Your task to perform on an android device: Open calendar and show me the second week of next month Image 0: 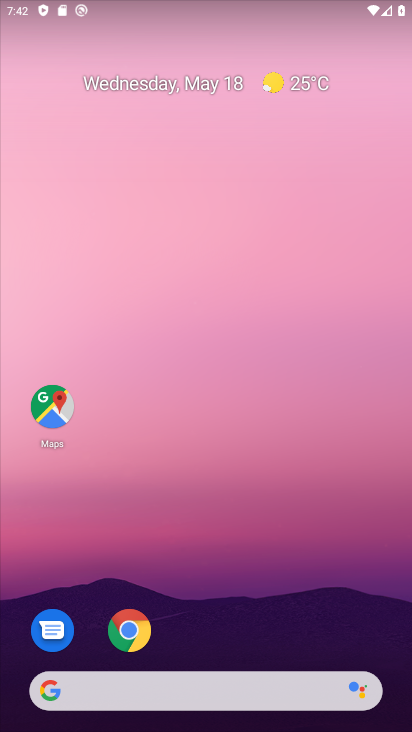
Step 0: drag from (249, 635) to (342, 258)
Your task to perform on an android device: Open calendar and show me the second week of next month Image 1: 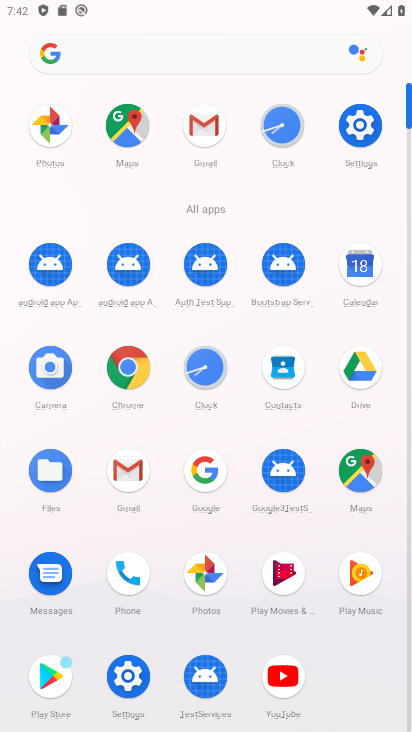
Step 1: click (356, 273)
Your task to perform on an android device: Open calendar and show me the second week of next month Image 2: 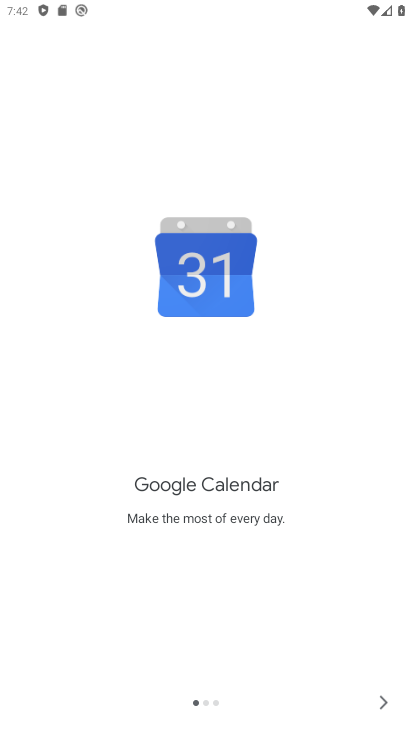
Step 2: click (380, 704)
Your task to perform on an android device: Open calendar and show me the second week of next month Image 3: 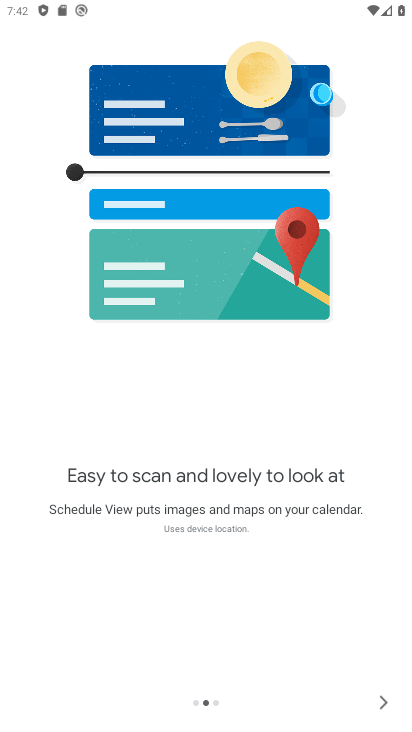
Step 3: click (380, 704)
Your task to perform on an android device: Open calendar and show me the second week of next month Image 4: 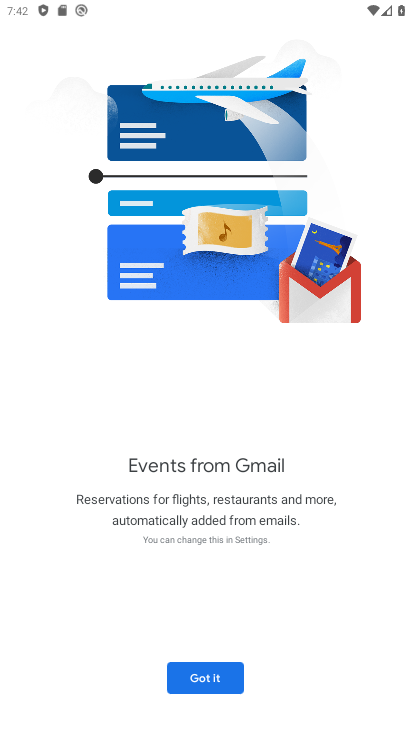
Step 4: click (380, 704)
Your task to perform on an android device: Open calendar and show me the second week of next month Image 5: 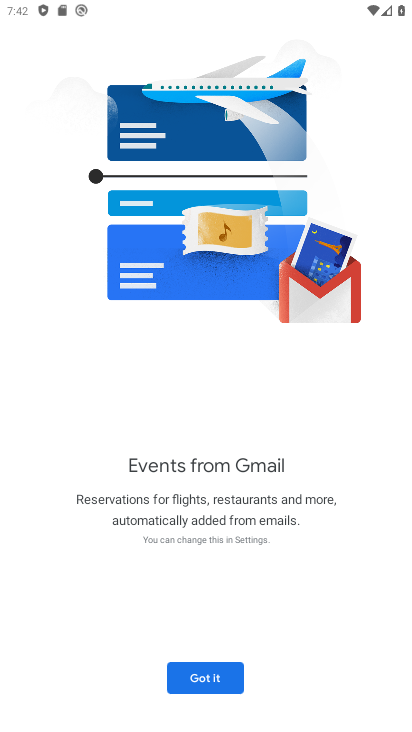
Step 5: click (190, 683)
Your task to perform on an android device: Open calendar and show me the second week of next month Image 6: 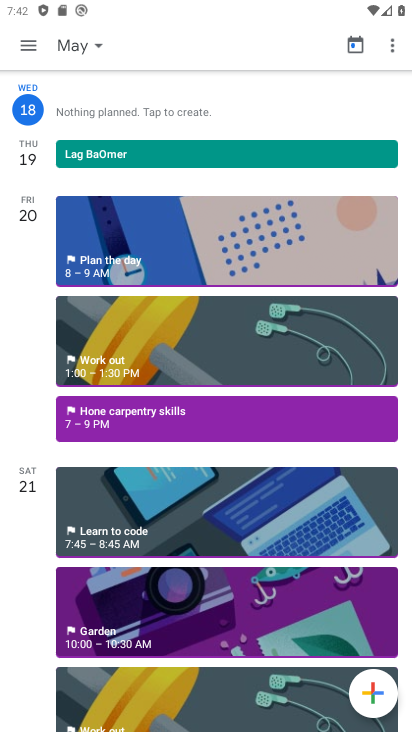
Step 6: click (72, 52)
Your task to perform on an android device: Open calendar and show me the second week of next month Image 7: 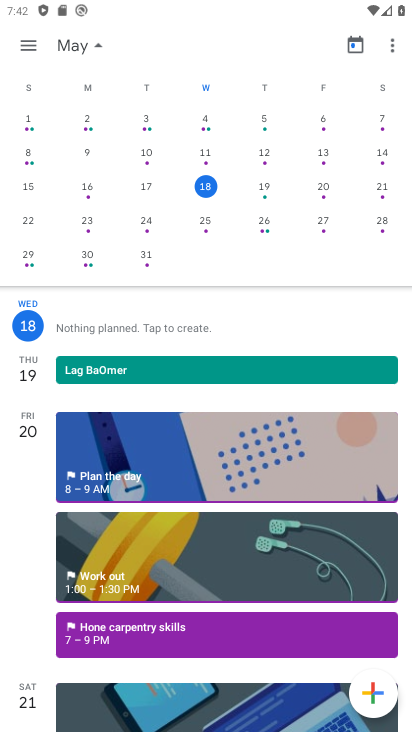
Step 7: drag from (361, 212) to (6, 244)
Your task to perform on an android device: Open calendar and show me the second week of next month Image 8: 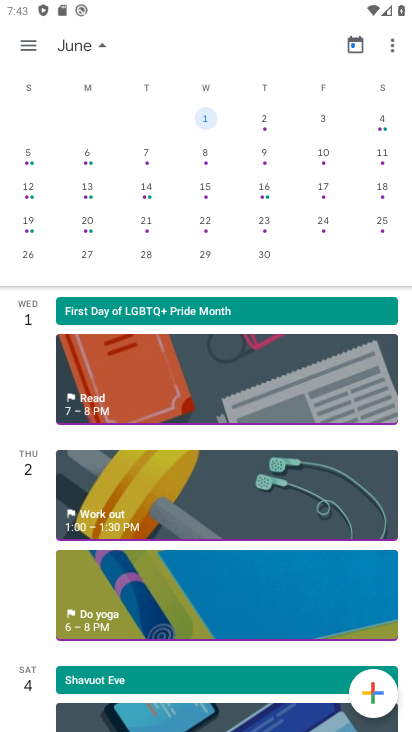
Step 8: click (15, 151)
Your task to perform on an android device: Open calendar and show me the second week of next month Image 9: 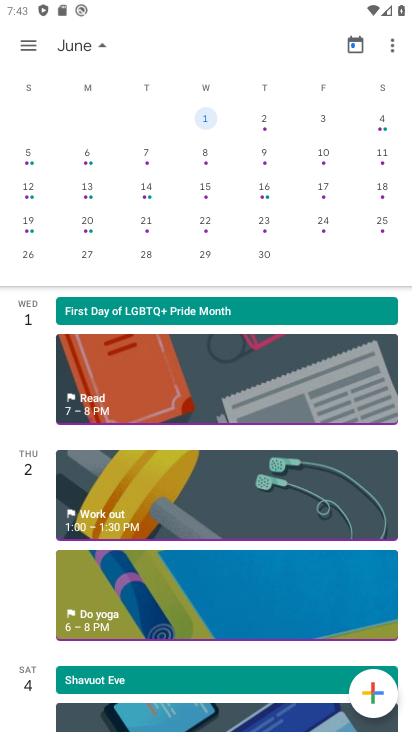
Step 9: click (85, 155)
Your task to perform on an android device: Open calendar and show me the second week of next month Image 10: 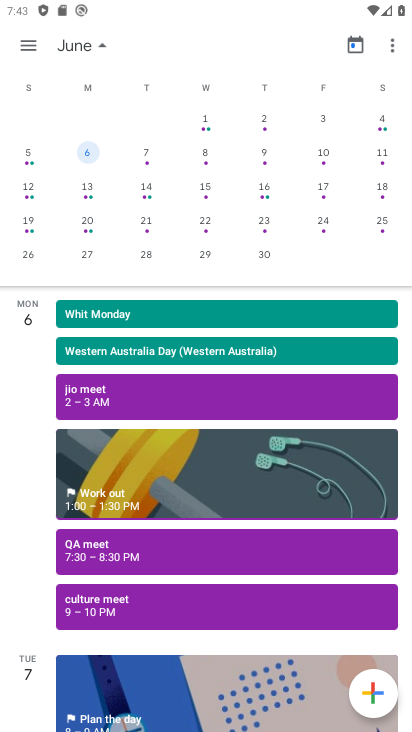
Step 10: click (150, 160)
Your task to perform on an android device: Open calendar and show me the second week of next month Image 11: 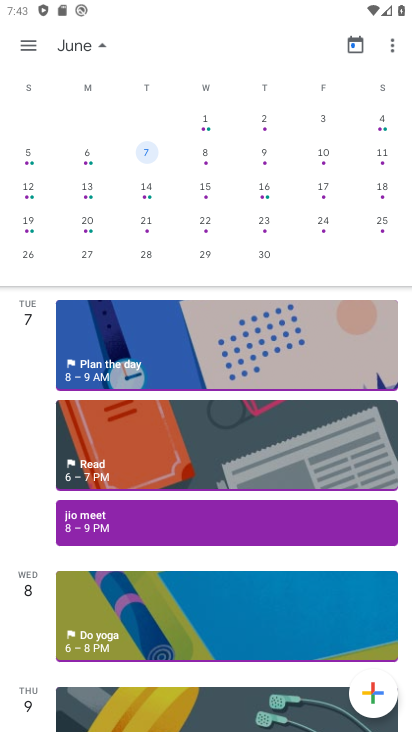
Step 11: click (147, 161)
Your task to perform on an android device: Open calendar and show me the second week of next month Image 12: 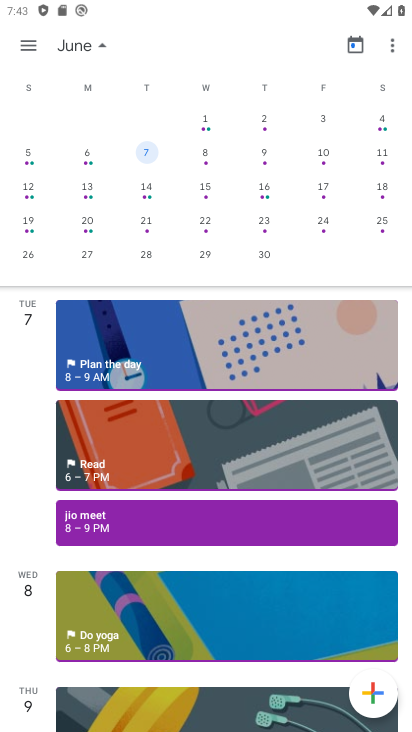
Step 12: click (208, 162)
Your task to perform on an android device: Open calendar and show me the second week of next month Image 13: 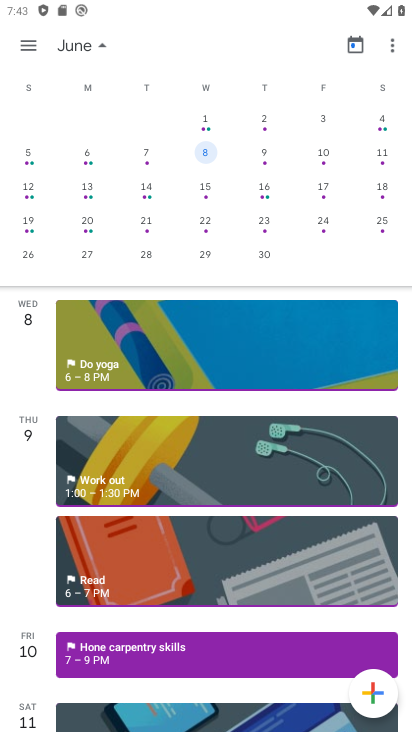
Step 13: click (265, 159)
Your task to perform on an android device: Open calendar and show me the second week of next month Image 14: 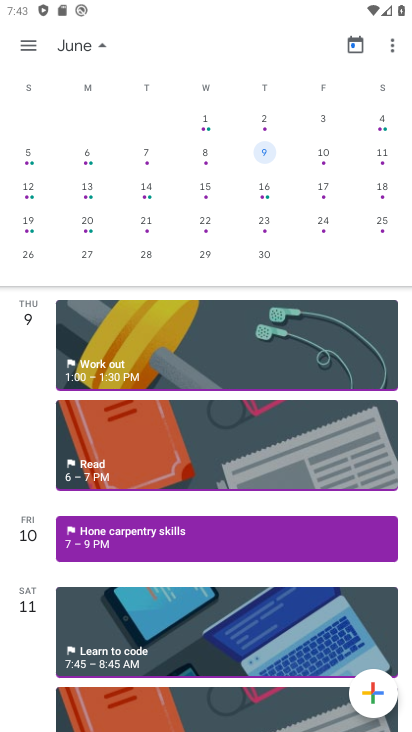
Step 14: click (324, 161)
Your task to perform on an android device: Open calendar and show me the second week of next month Image 15: 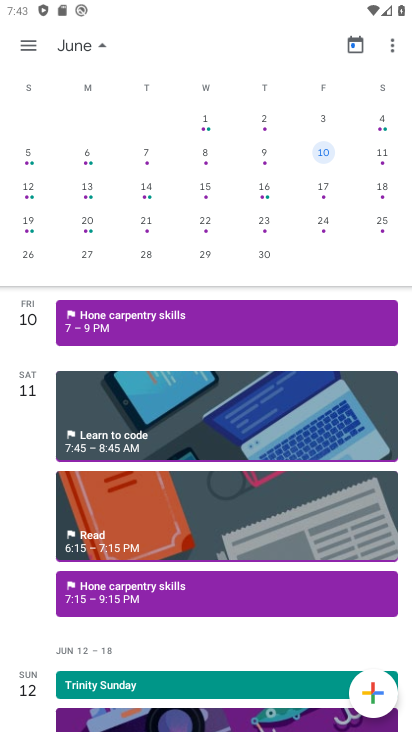
Step 15: click (386, 162)
Your task to perform on an android device: Open calendar and show me the second week of next month Image 16: 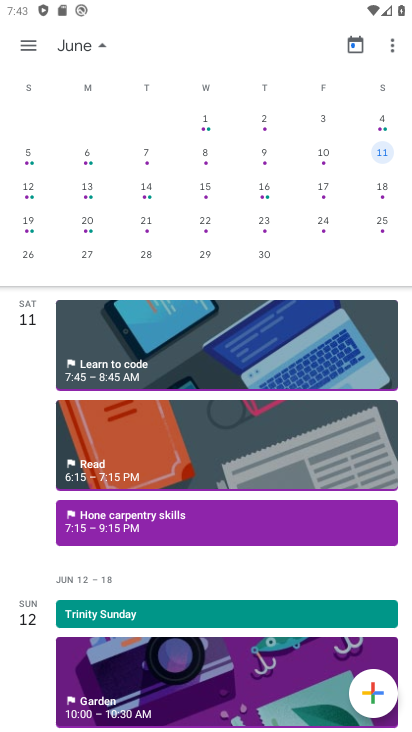
Step 16: task complete